Your task to perform on an android device: open chrome and create a bookmark for the current page Image 0: 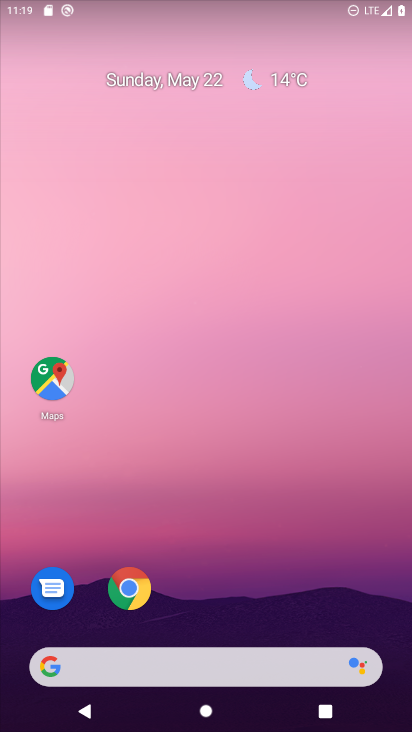
Step 0: click (130, 578)
Your task to perform on an android device: open chrome and create a bookmark for the current page Image 1: 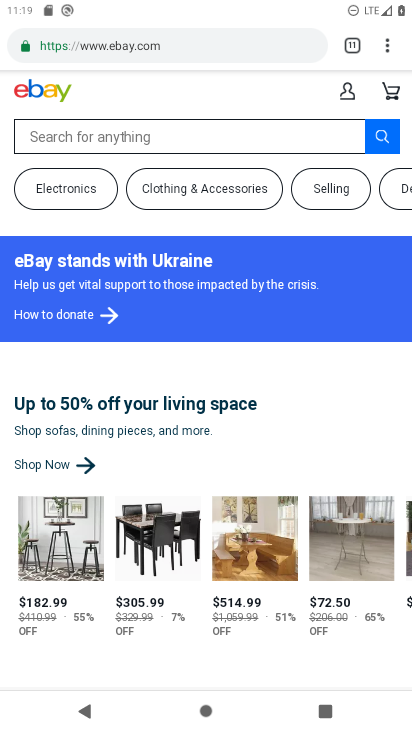
Step 1: click (384, 52)
Your task to perform on an android device: open chrome and create a bookmark for the current page Image 2: 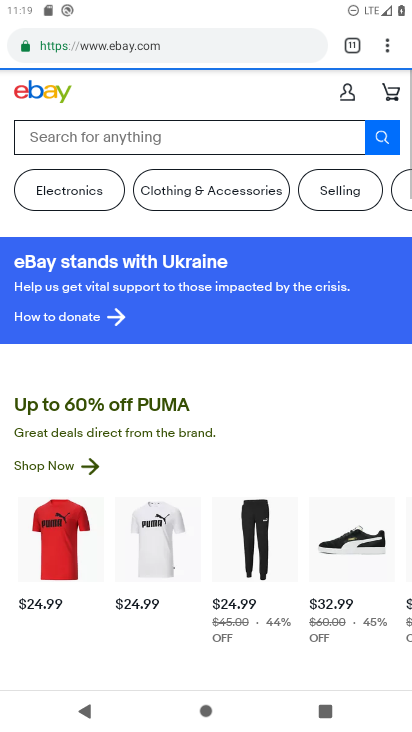
Step 2: click (384, 52)
Your task to perform on an android device: open chrome and create a bookmark for the current page Image 3: 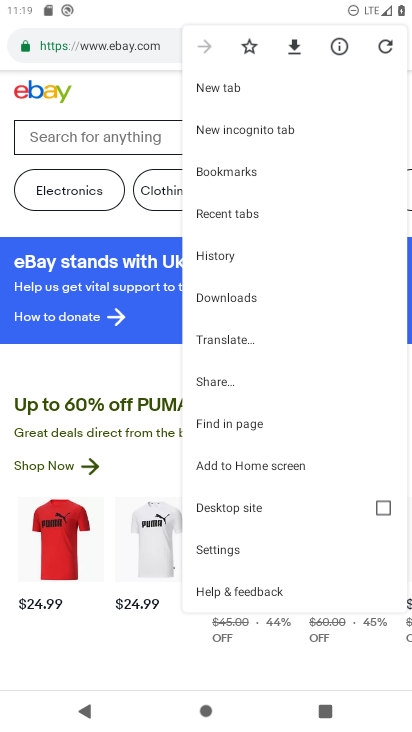
Step 3: click (251, 52)
Your task to perform on an android device: open chrome and create a bookmark for the current page Image 4: 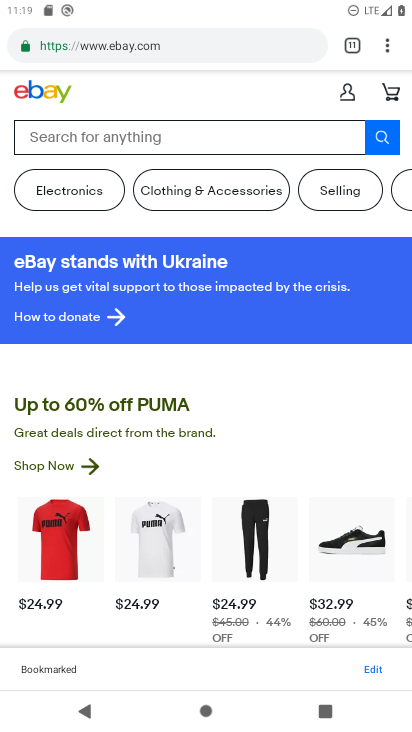
Step 4: task complete